Your task to perform on an android device: Open Android settings Image 0: 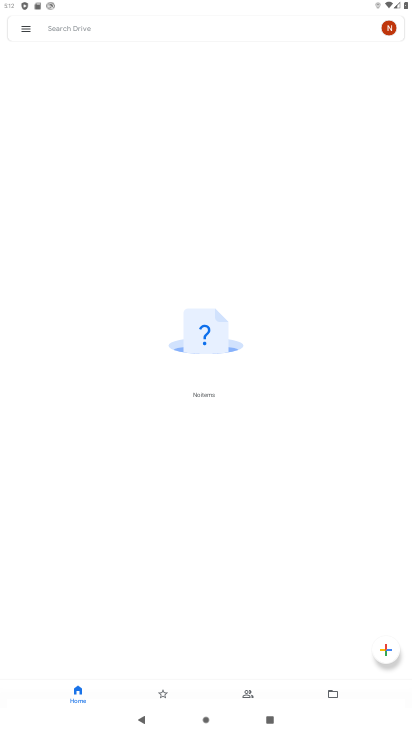
Step 0: press home button
Your task to perform on an android device: Open Android settings Image 1: 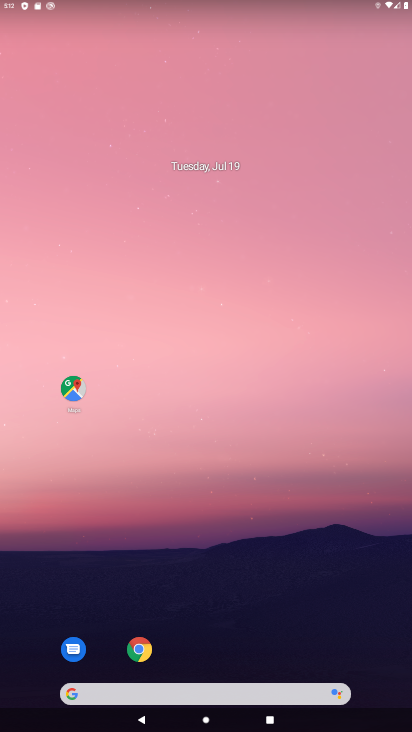
Step 1: drag from (308, 597) to (285, 94)
Your task to perform on an android device: Open Android settings Image 2: 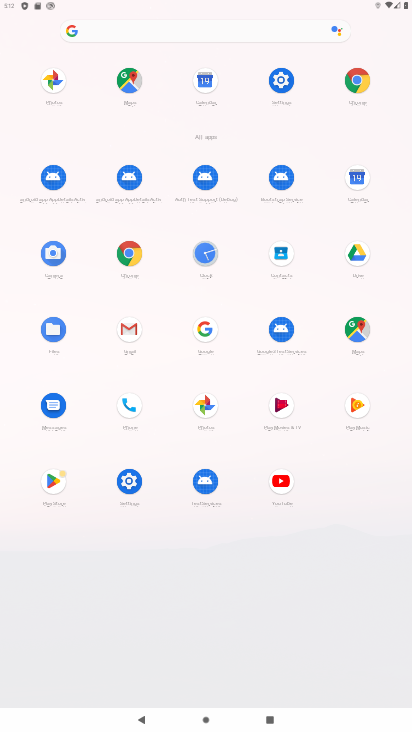
Step 2: click (281, 81)
Your task to perform on an android device: Open Android settings Image 3: 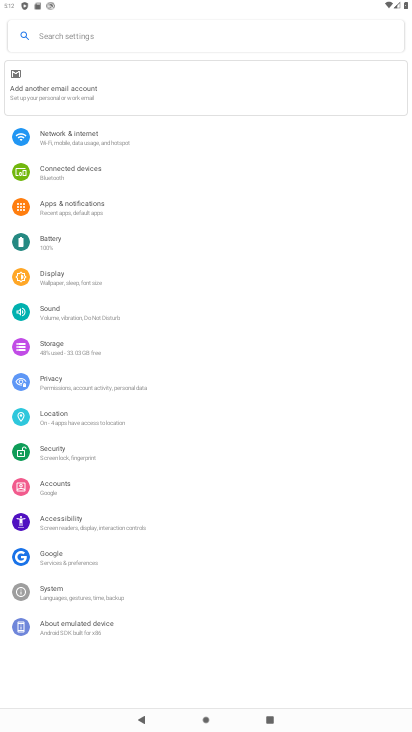
Step 3: task complete